Your task to perform on an android device: Open settings on Google Maps Image 0: 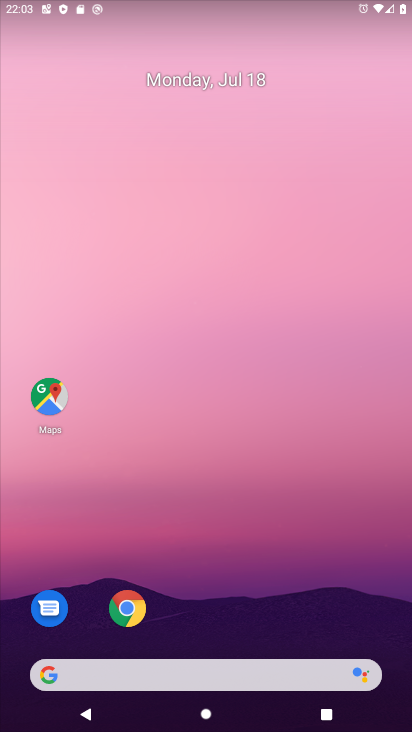
Step 0: click (53, 388)
Your task to perform on an android device: Open settings on Google Maps Image 1: 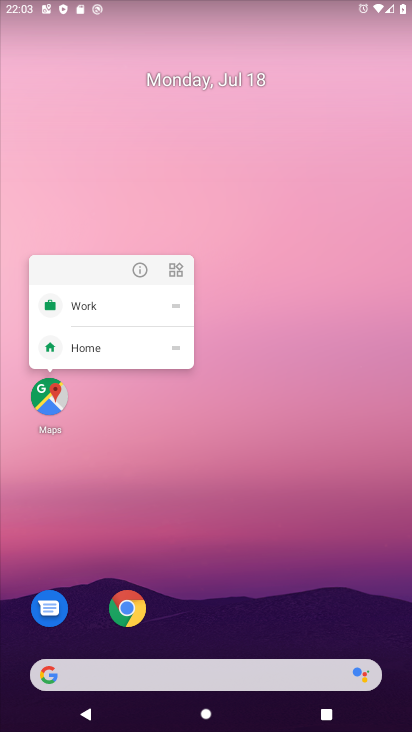
Step 1: click (55, 401)
Your task to perform on an android device: Open settings on Google Maps Image 2: 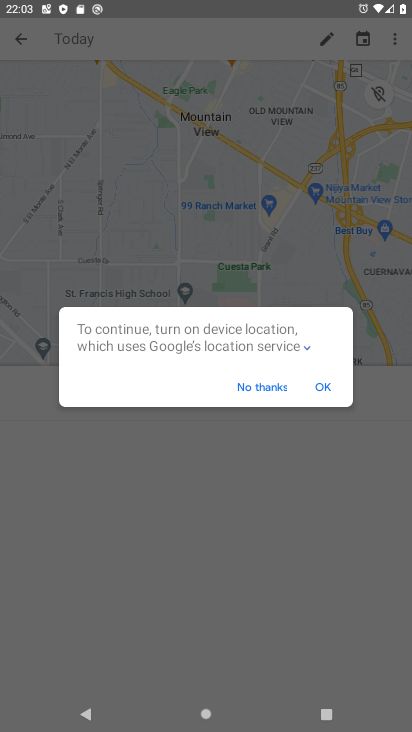
Step 2: click (323, 381)
Your task to perform on an android device: Open settings on Google Maps Image 3: 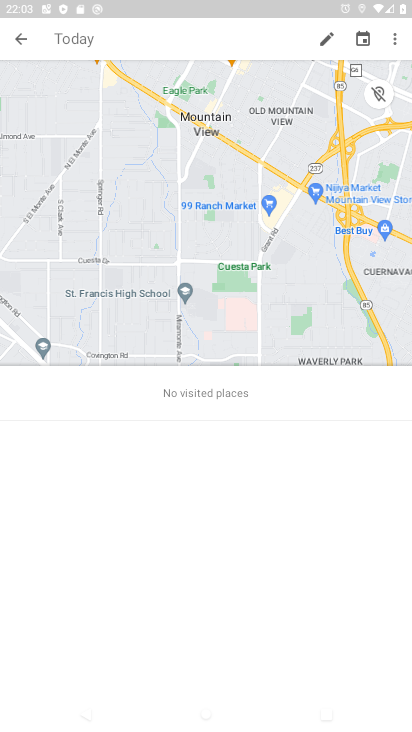
Step 3: click (16, 39)
Your task to perform on an android device: Open settings on Google Maps Image 4: 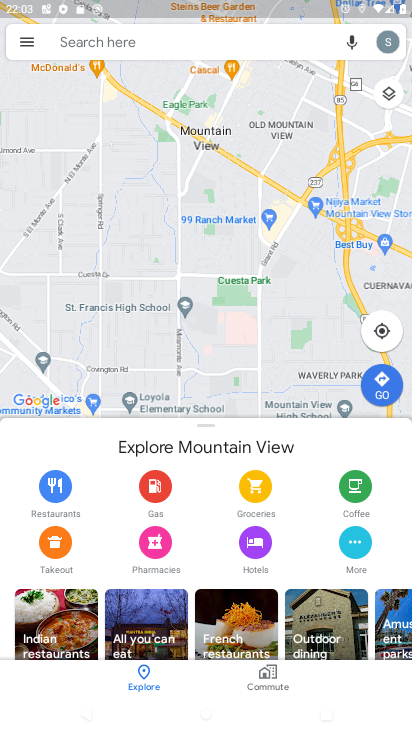
Step 4: click (20, 37)
Your task to perform on an android device: Open settings on Google Maps Image 5: 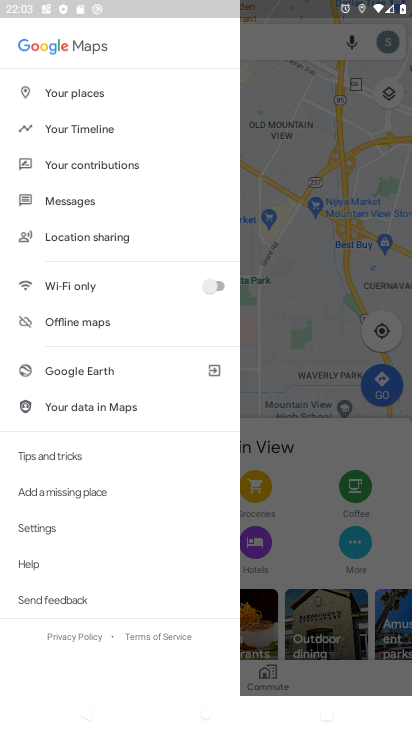
Step 5: click (40, 526)
Your task to perform on an android device: Open settings on Google Maps Image 6: 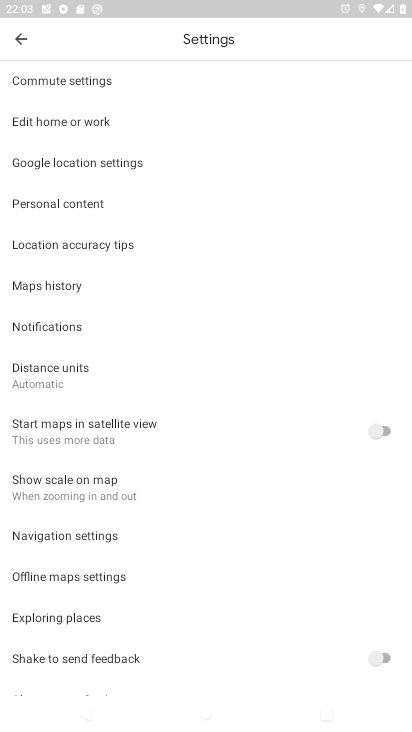
Step 6: task complete